Your task to perform on an android device: turn off location history Image 0: 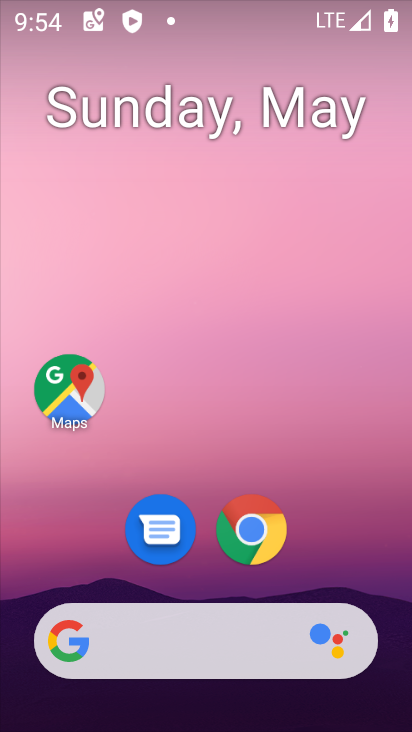
Step 0: drag from (345, 549) to (240, 148)
Your task to perform on an android device: turn off location history Image 1: 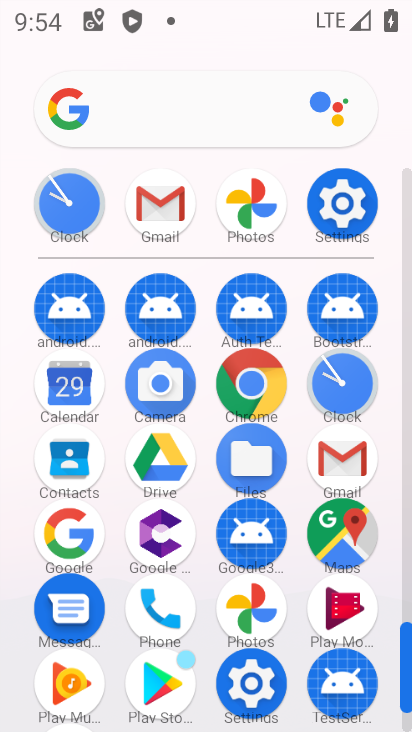
Step 1: click (357, 240)
Your task to perform on an android device: turn off location history Image 2: 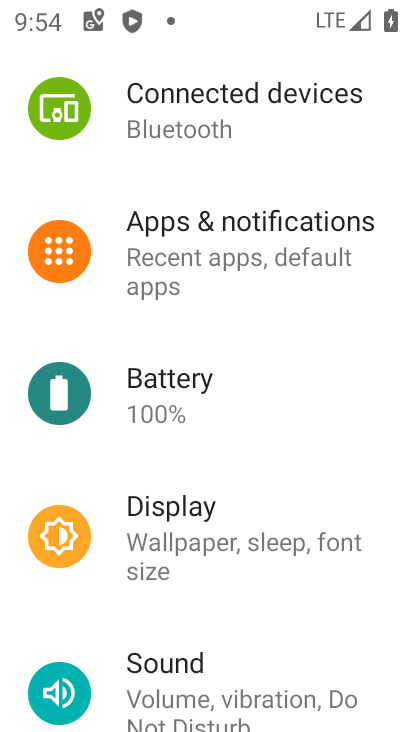
Step 2: task complete